Your task to perform on an android device: open chrome privacy settings Image 0: 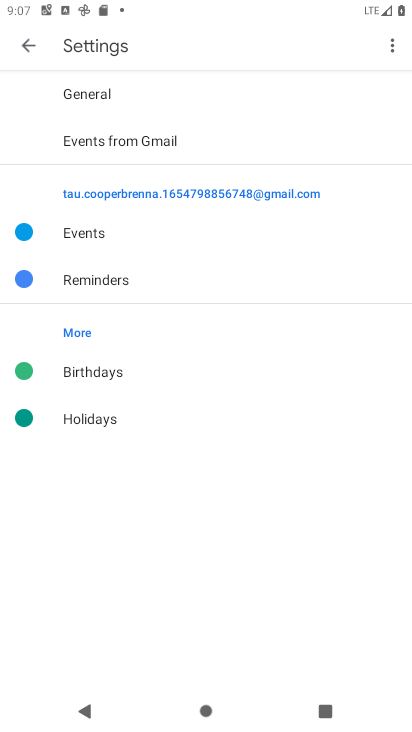
Step 0: press home button
Your task to perform on an android device: open chrome privacy settings Image 1: 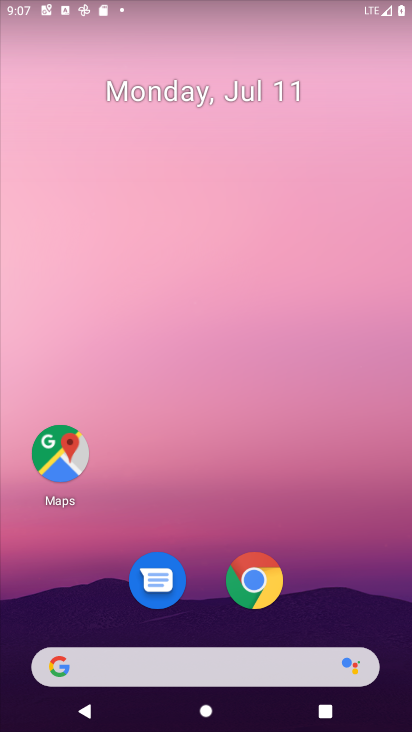
Step 1: click (268, 575)
Your task to perform on an android device: open chrome privacy settings Image 2: 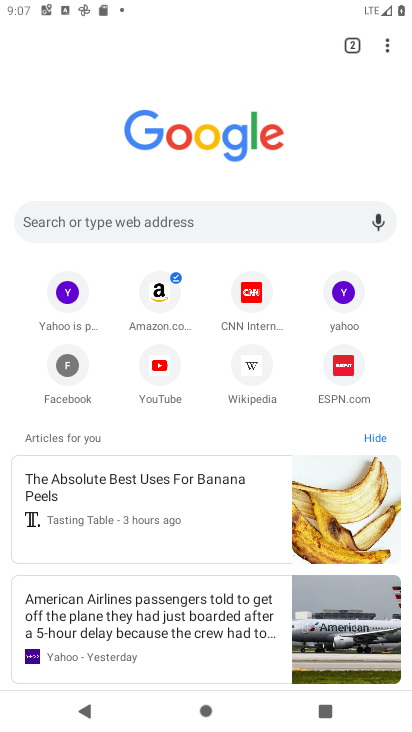
Step 2: click (385, 40)
Your task to perform on an android device: open chrome privacy settings Image 3: 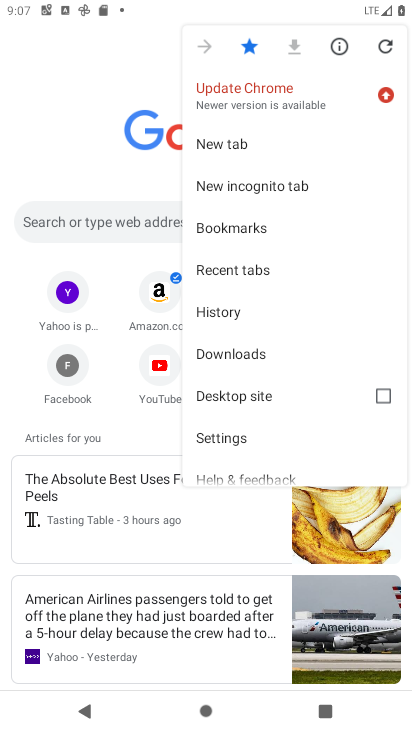
Step 3: click (240, 437)
Your task to perform on an android device: open chrome privacy settings Image 4: 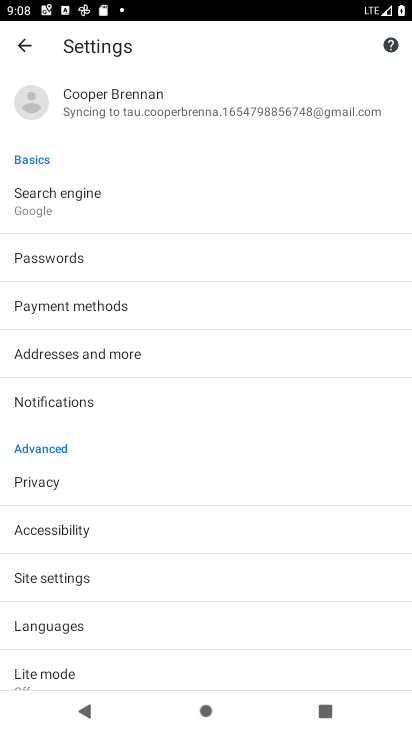
Step 4: click (43, 489)
Your task to perform on an android device: open chrome privacy settings Image 5: 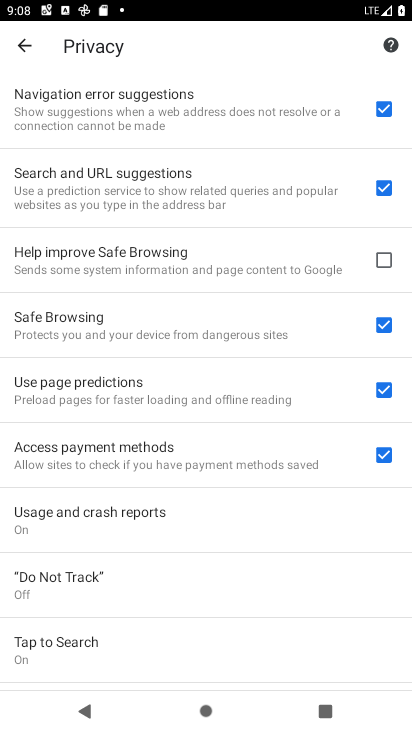
Step 5: task complete